Your task to perform on an android device: Open Reddit.com Image 0: 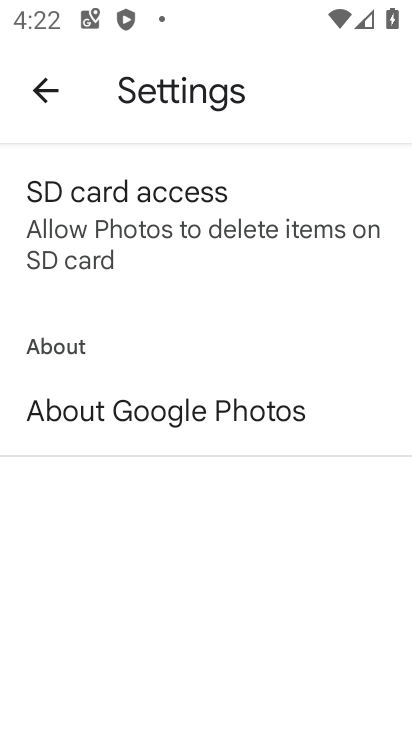
Step 0: press home button
Your task to perform on an android device: Open Reddit.com Image 1: 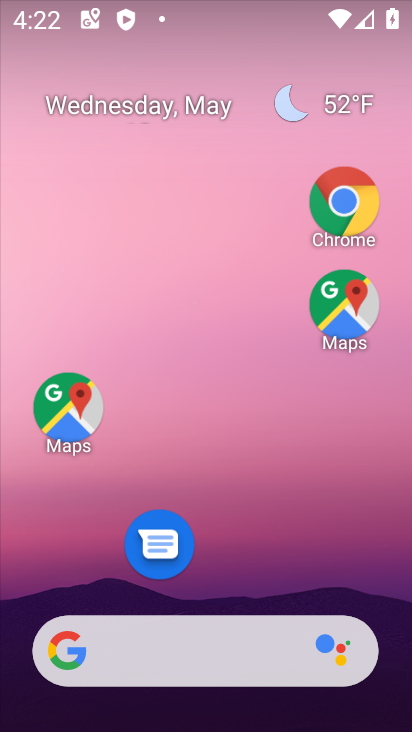
Step 1: click (354, 197)
Your task to perform on an android device: Open Reddit.com Image 2: 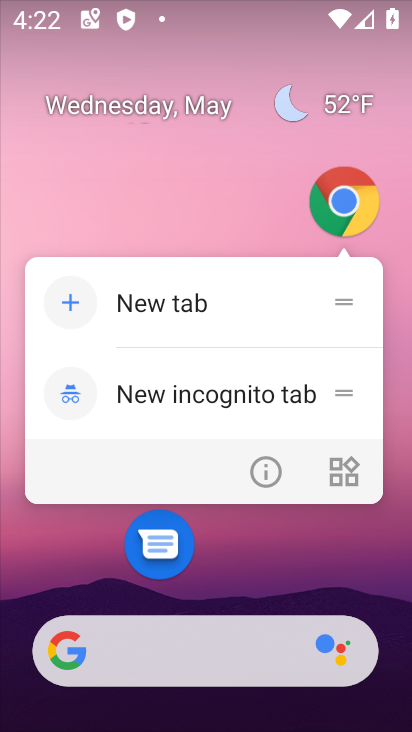
Step 2: click (342, 208)
Your task to perform on an android device: Open Reddit.com Image 3: 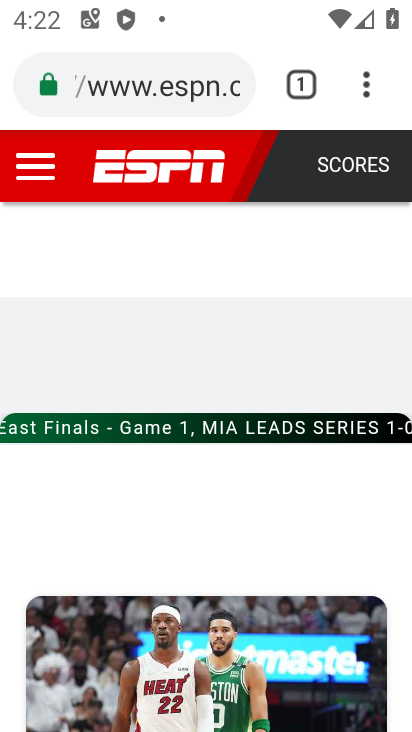
Step 3: press back button
Your task to perform on an android device: Open Reddit.com Image 4: 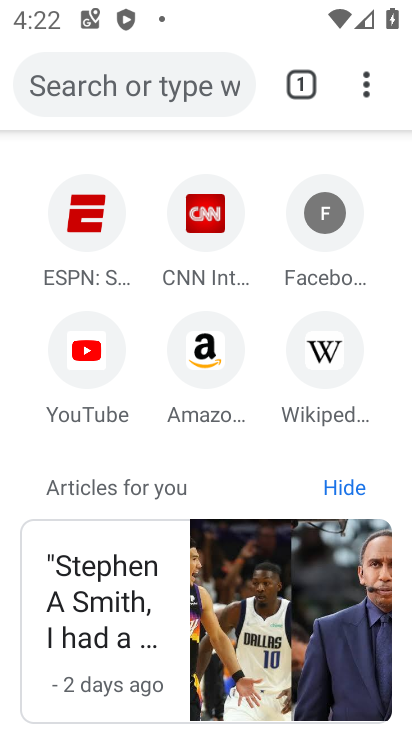
Step 4: click (155, 87)
Your task to perform on an android device: Open Reddit.com Image 5: 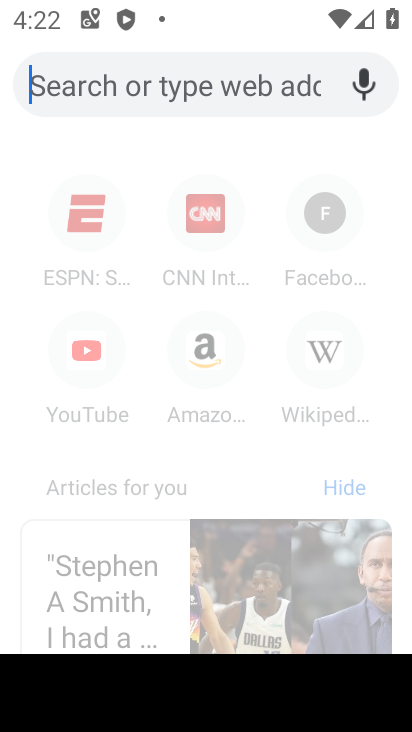
Step 5: type "www.reddit.com"
Your task to perform on an android device: Open Reddit.com Image 6: 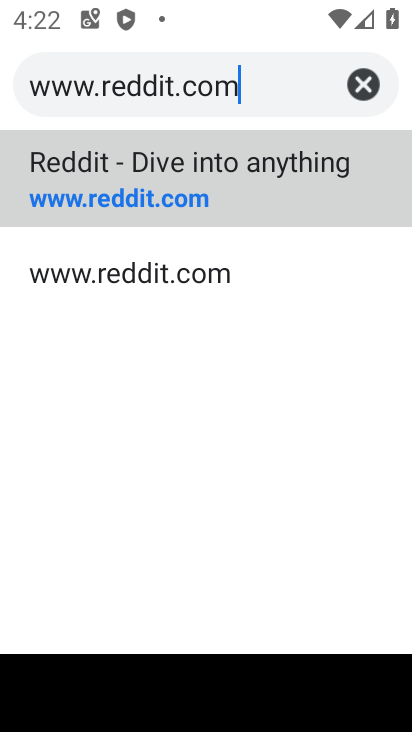
Step 6: click (127, 215)
Your task to perform on an android device: Open Reddit.com Image 7: 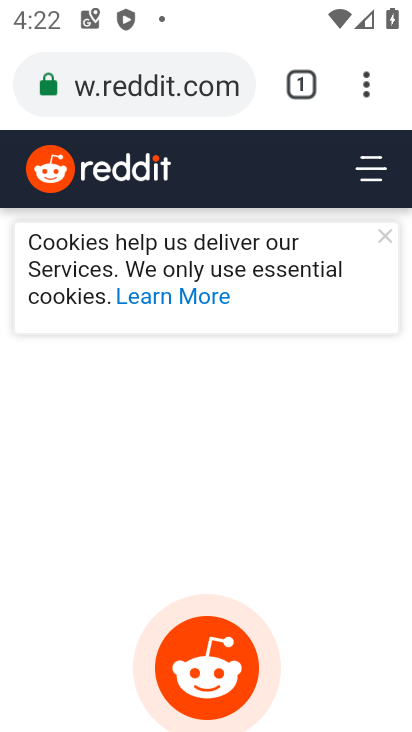
Step 7: task complete